Your task to perform on an android device: Is it going to rain tomorrow? Image 0: 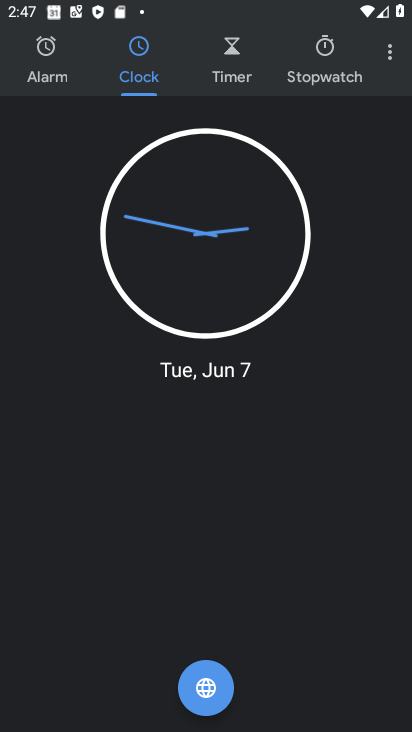
Step 0: press home button
Your task to perform on an android device: Is it going to rain tomorrow? Image 1: 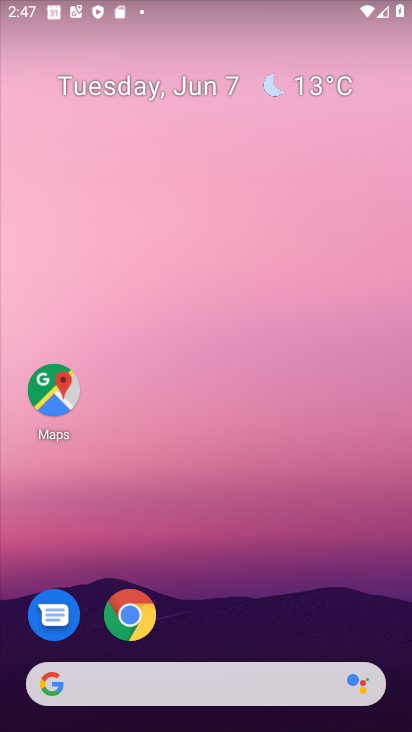
Step 1: click (280, 85)
Your task to perform on an android device: Is it going to rain tomorrow? Image 2: 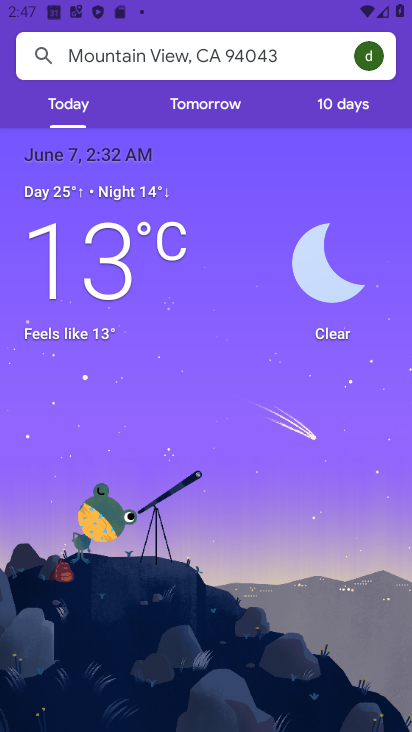
Step 2: click (207, 104)
Your task to perform on an android device: Is it going to rain tomorrow? Image 3: 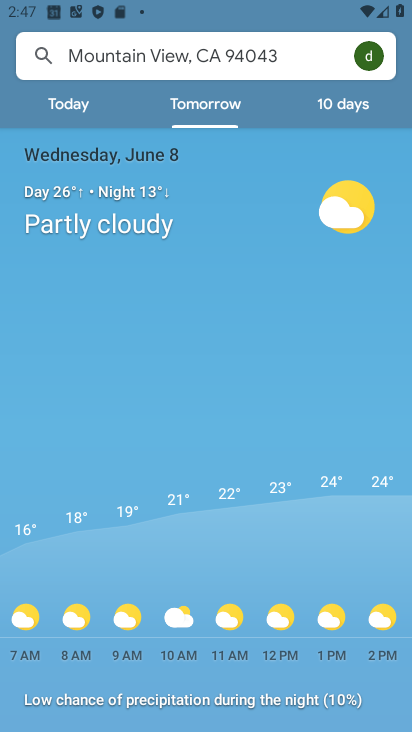
Step 3: task complete